Your task to perform on an android device: Go to battery settings Image 0: 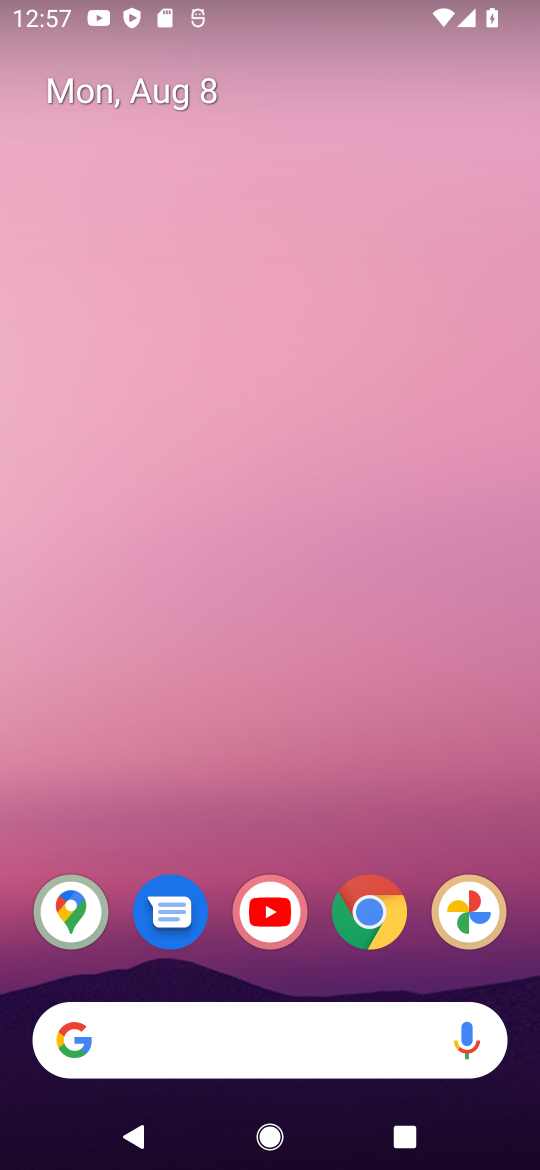
Step 0: drag from (249, 729) to (419, 2)
Your task to perform on an android device: Go to battery settings Image 1: 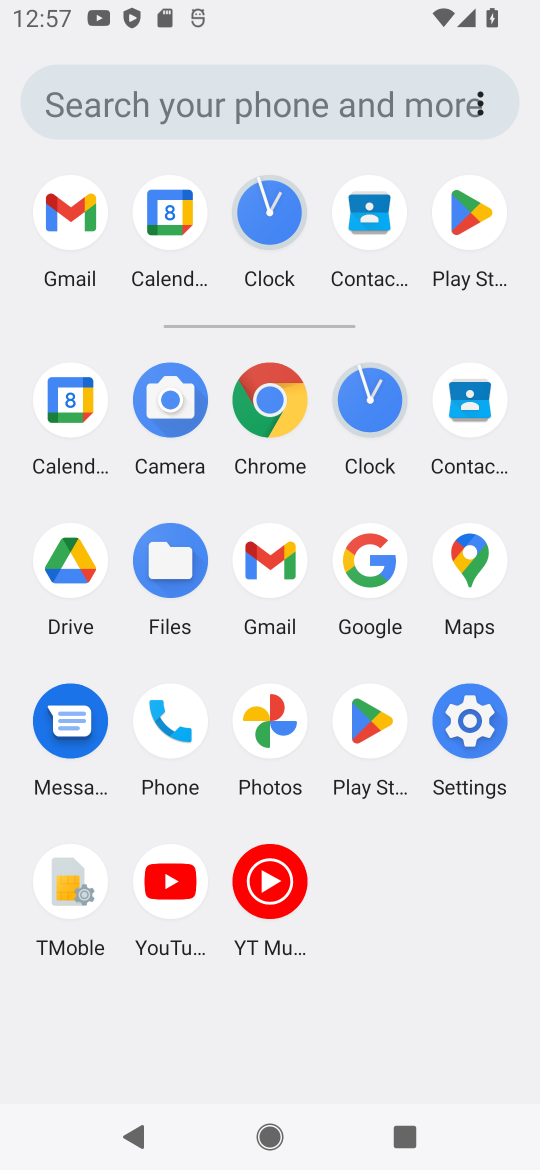
Step 1: click (470, 752)
Your task to perform on an android device: Go to battery settings Image 2: 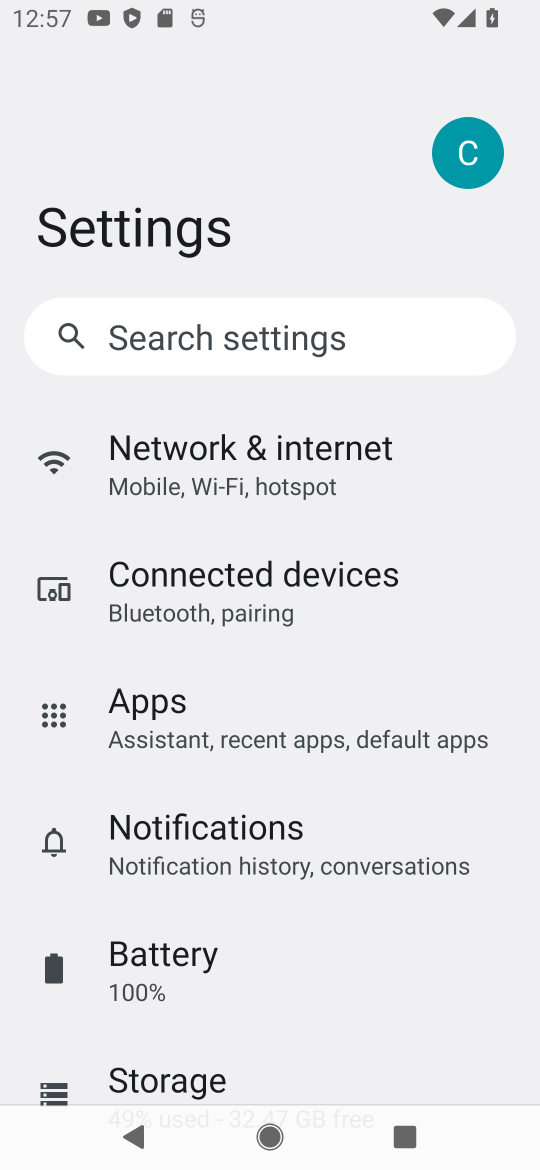
Step 2: click (200, 967)
Your task to perform on an android device: Go to battery settings Image 3: 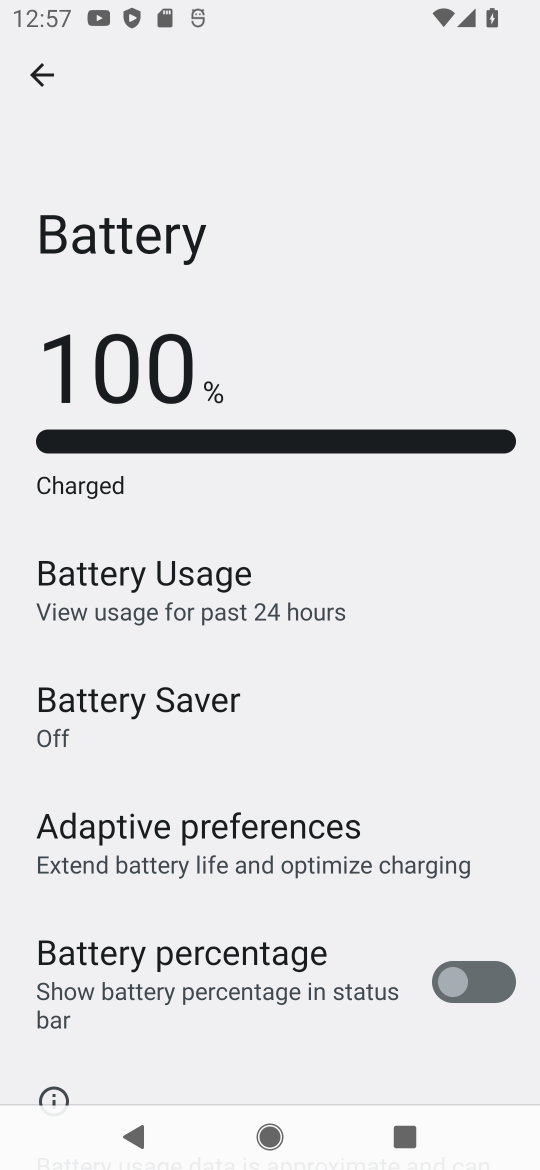
Step 3: task complete